Your task to perform on an android device: set default search engine in the chrome app Image 0: 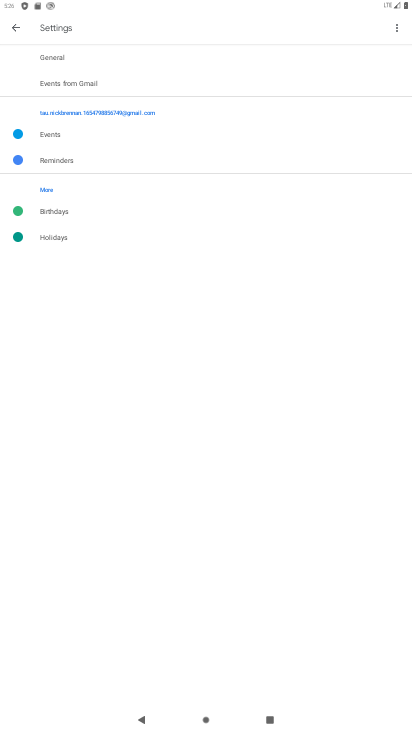
Step 0: press home button
Your task to perform on an android device: set default search engine in the chrome app Image 1: 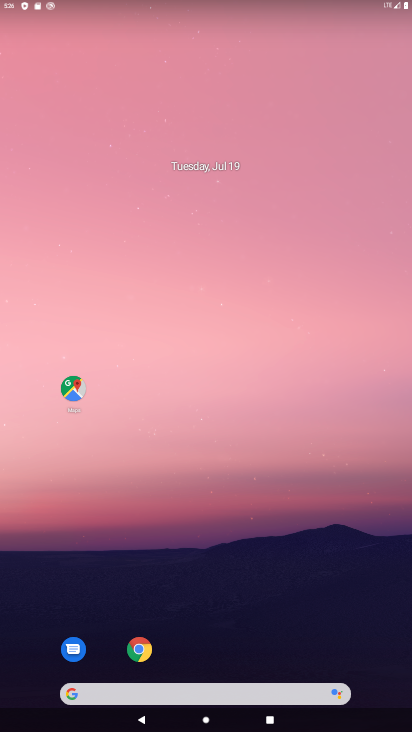
Step 1: drag from (328, 617) to (202, 120)
Your task to perform on an android device: set default search engine in the chrome app Image 2: 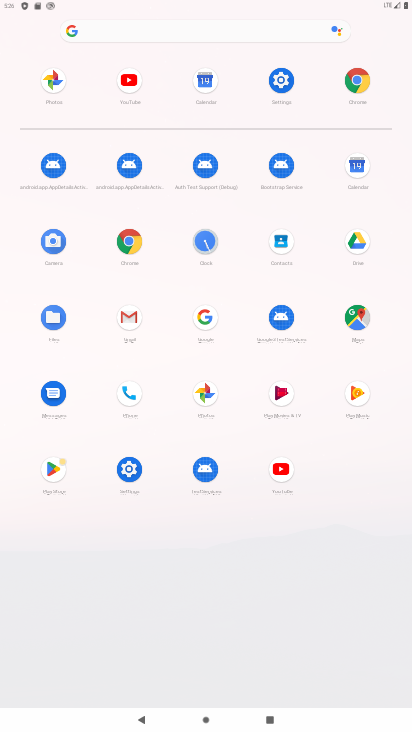
Step 2: click (354, 85)
Your task to perform on an android device: set default search engine in the chrome app Image 3: 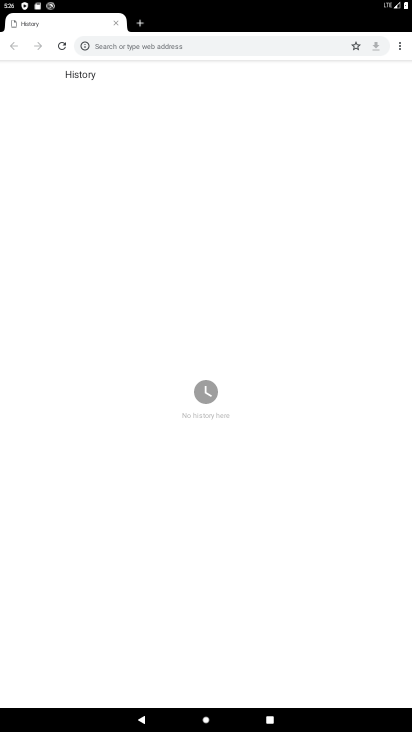
Step 3: drag from (399, 41) to (300, 237)
Your task to perform on an android device: set default search engine in the chrome app Image 4: 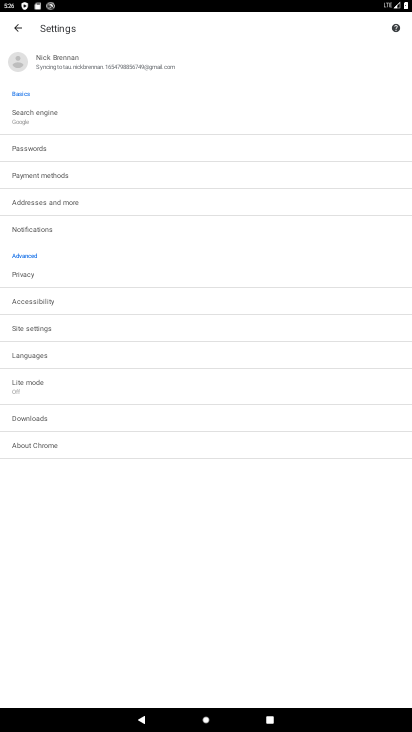
Step 4: click (52, 106)
Your task to perform on an android device: set default search engine in the chrome app Image 5: 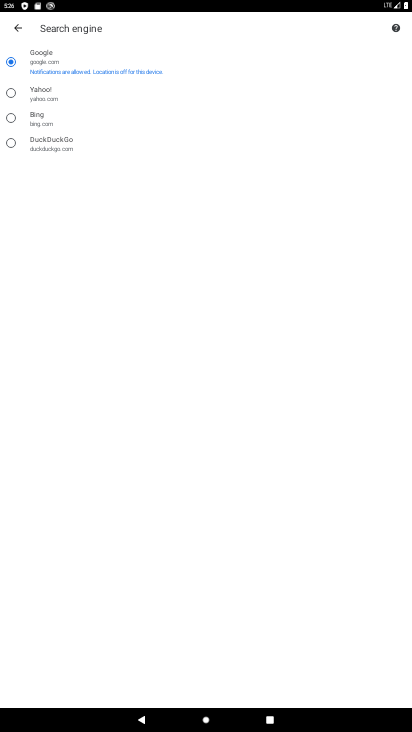
Step 5: task complete